Your task to perform on an android device: Search for Mexican restaurants on Maps Image 0: 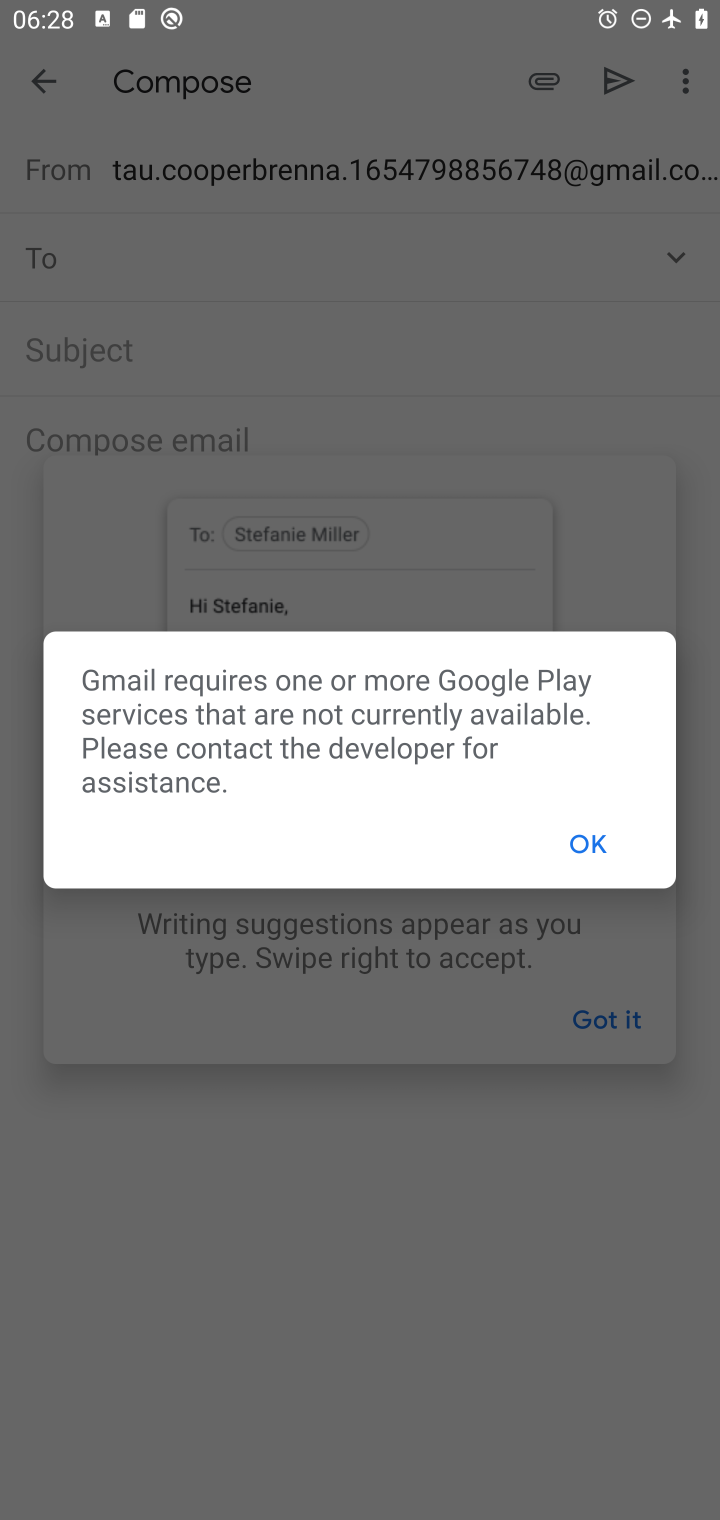
Step 0: press home button
Your task to perform on an android device: Search for Mexican restaurants on Maps Image 1: 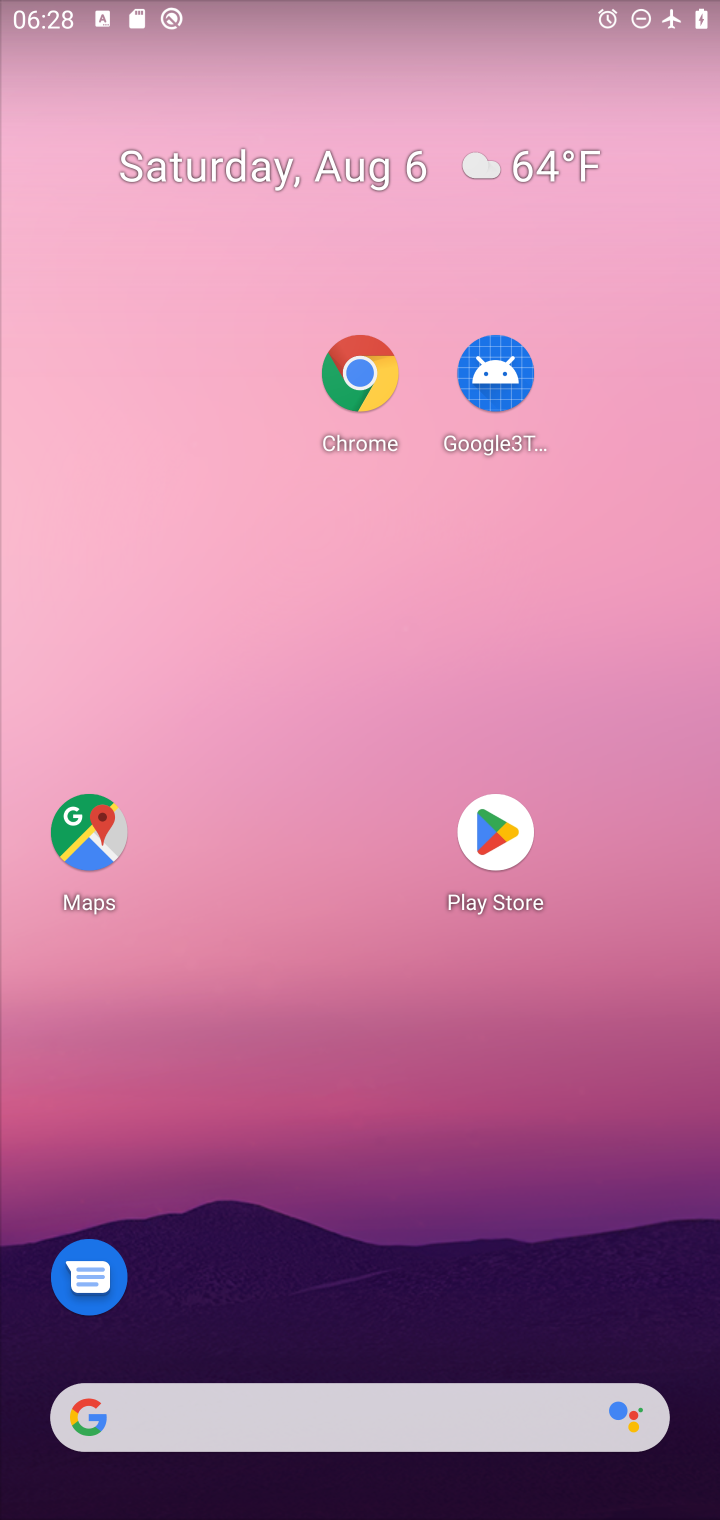
Step 1: drag from (270, 1389) to (146, 442)
Your task to perform on an android device: Search for Mexican restaurants on Maps Image 2: 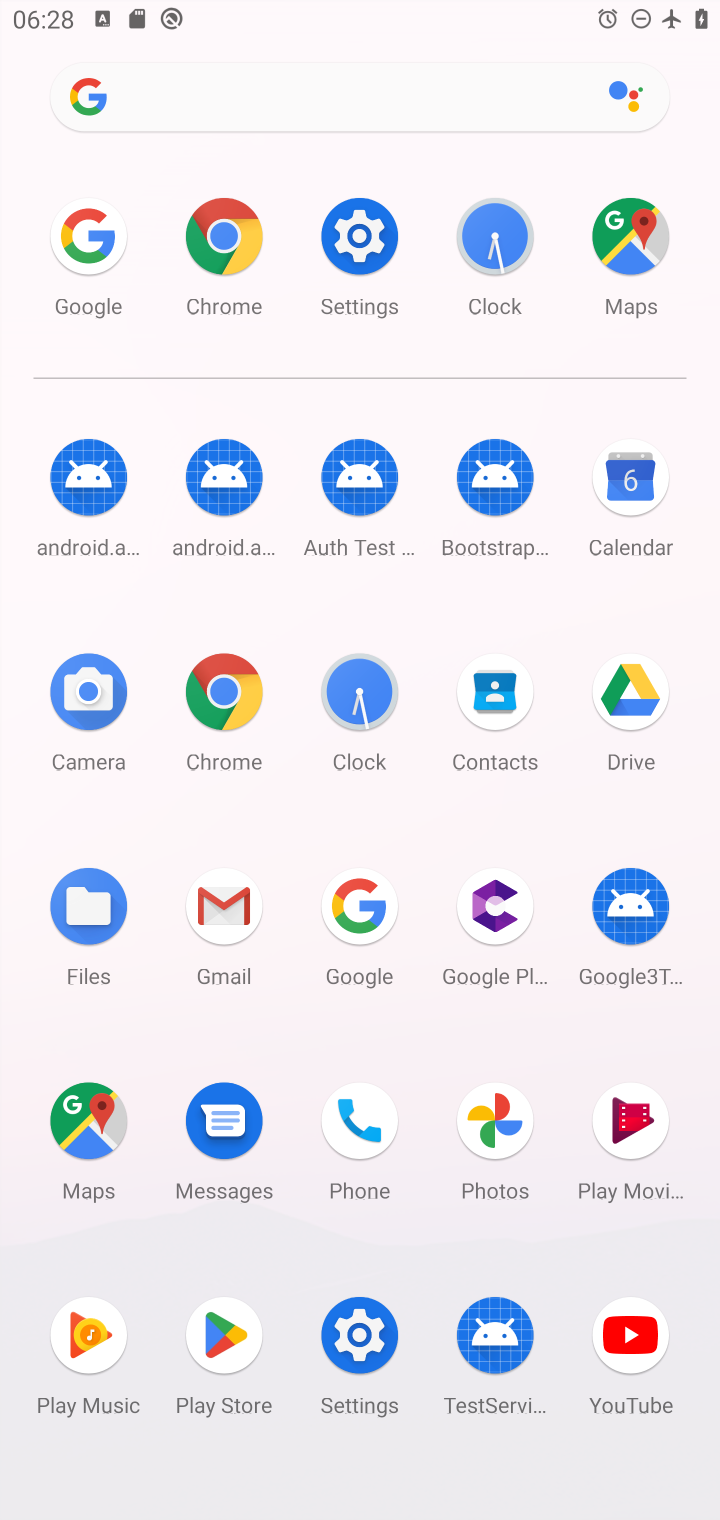
Step 2: click (98, 1108)
Your task to perform on an android device: Search for Mexican restaurants on Maps Image 3: 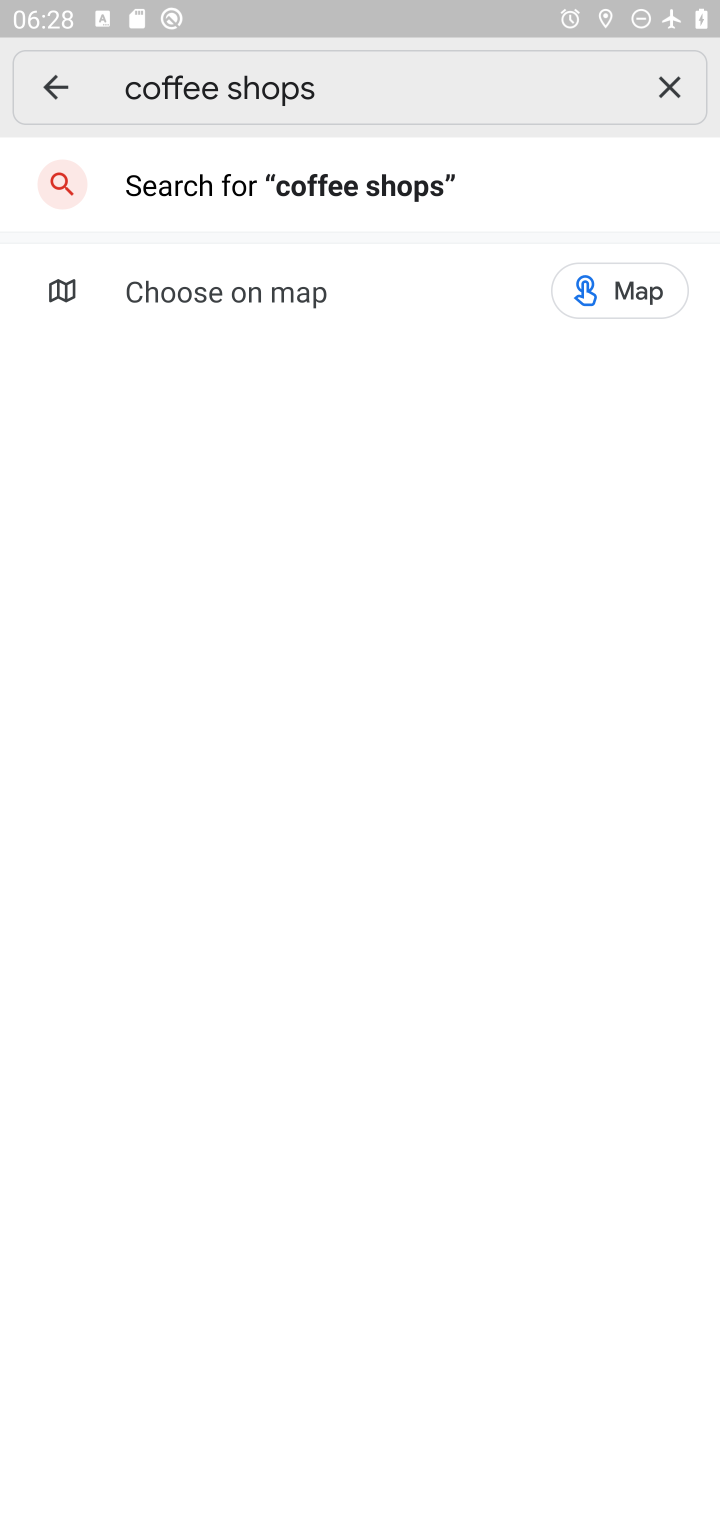
Step 3: click (666, 89)
Your task to perform on an android device: Search for Mexican restaurants on Maps Image 4: 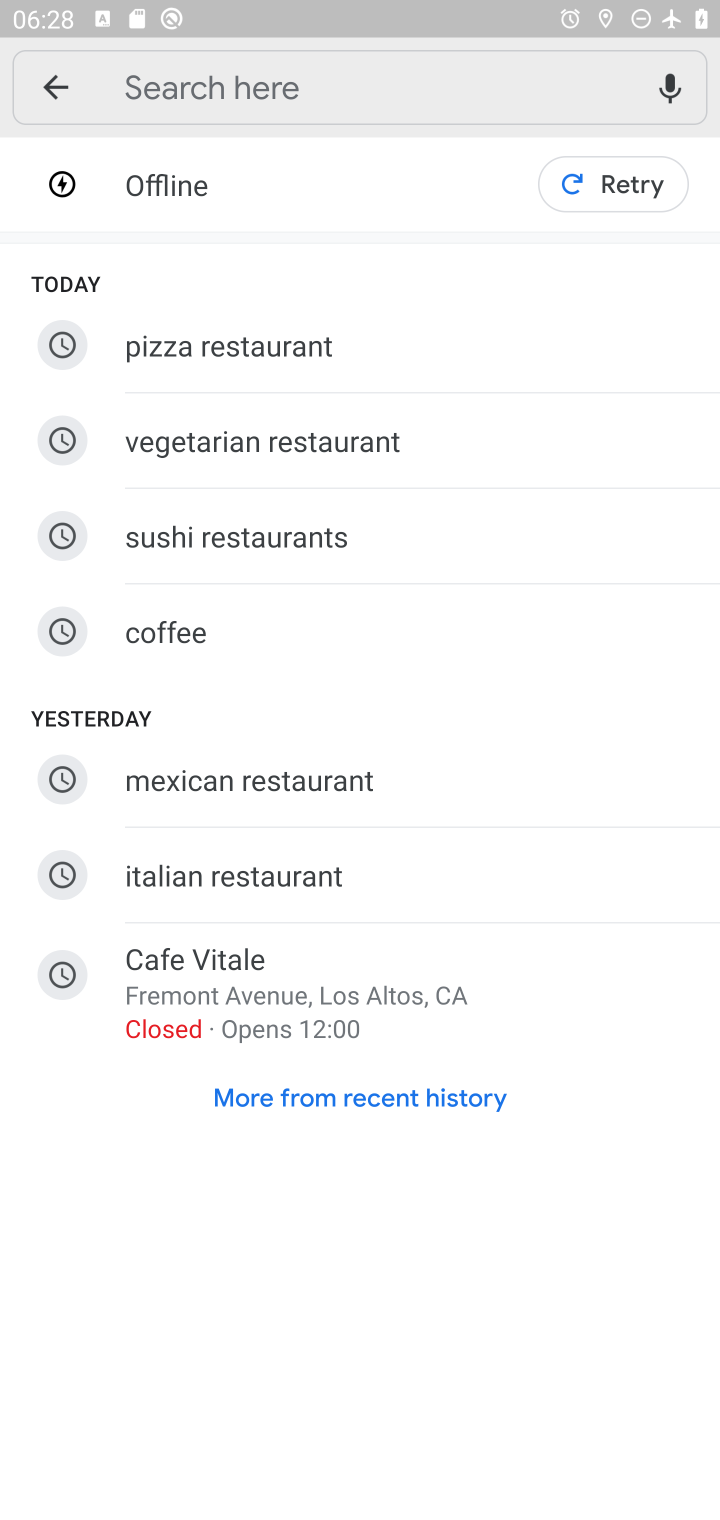
Step 4: drag from (456, 19) to (402, 690)
Your task to perform on an android device: Search for Mexican restaurants on Maps Image 5: 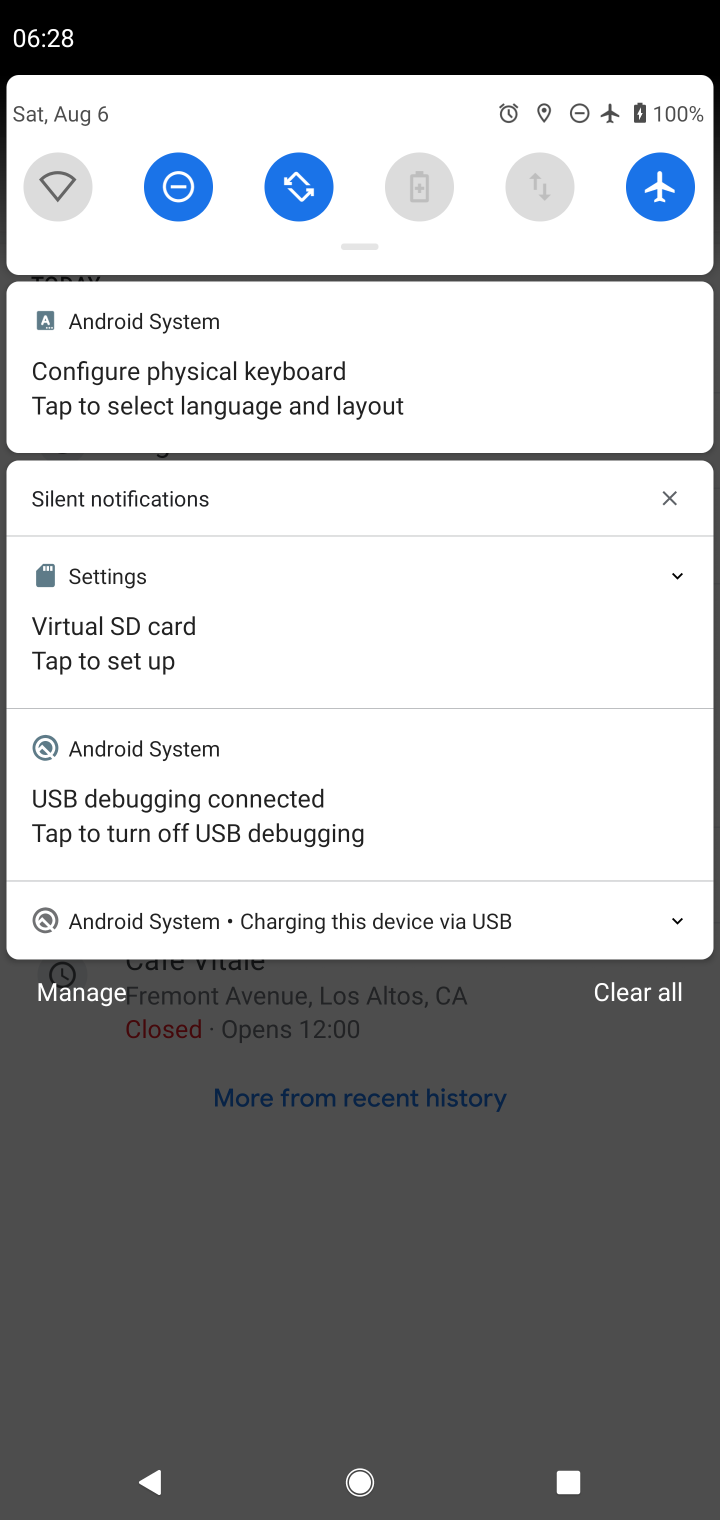
Step 5: click (657, 169)
Your task to perform on an android device: Search for Mexican restaurants on Maps Image 6: 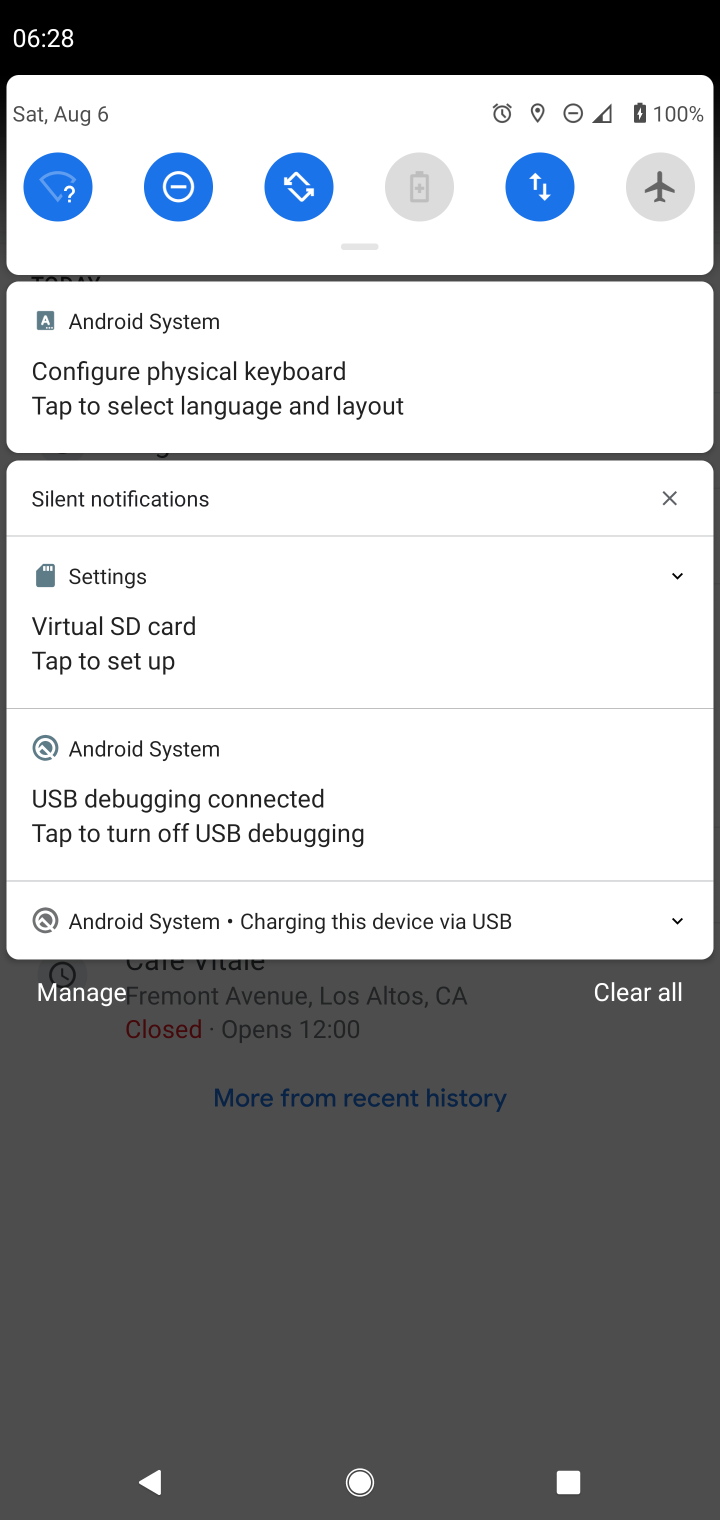
Step 6: click (558, 1223)
Your task to perform on an android device: Search for Mexican restaurants on Maps Image 7: 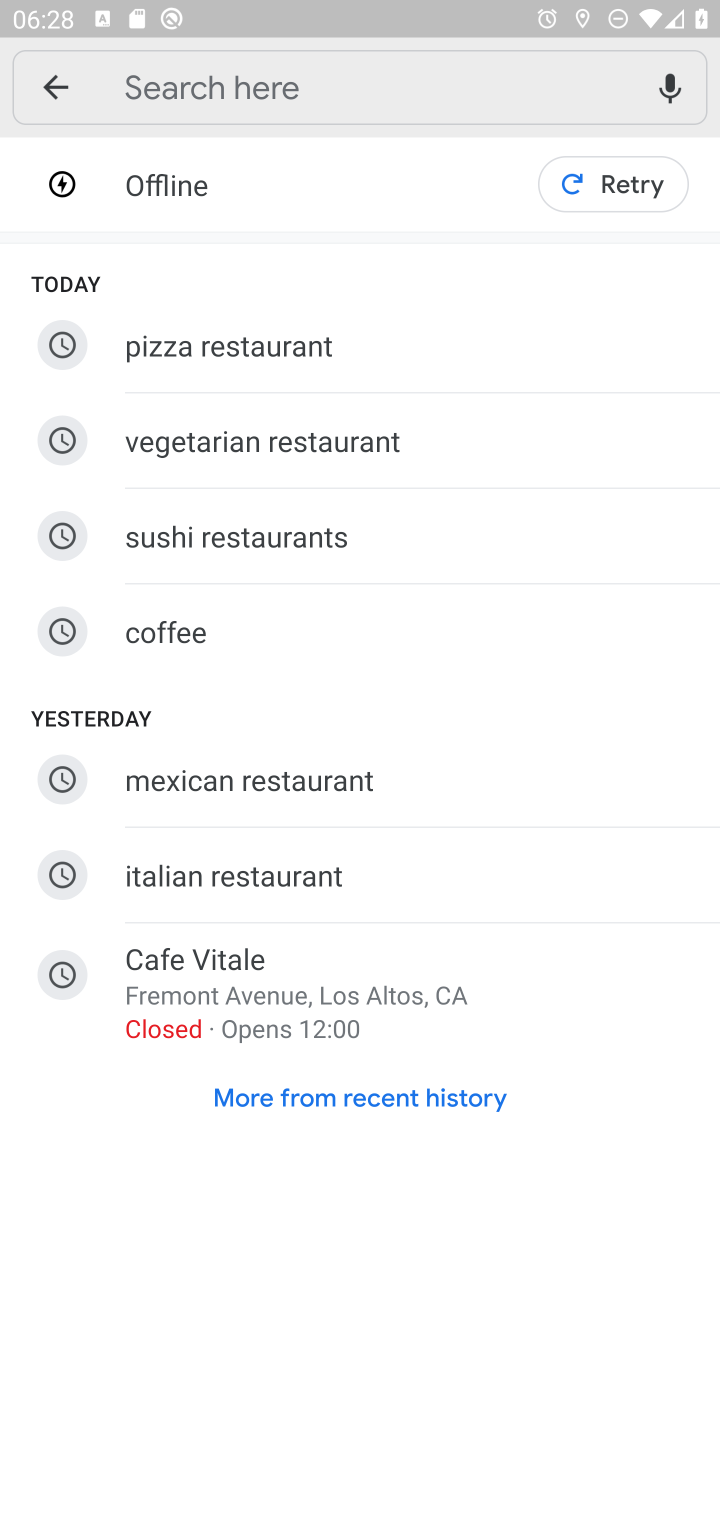
Step 7: click (355, 790)
Your task to perform on an android device: Search for Mexican restaurants on Maps Image 8: 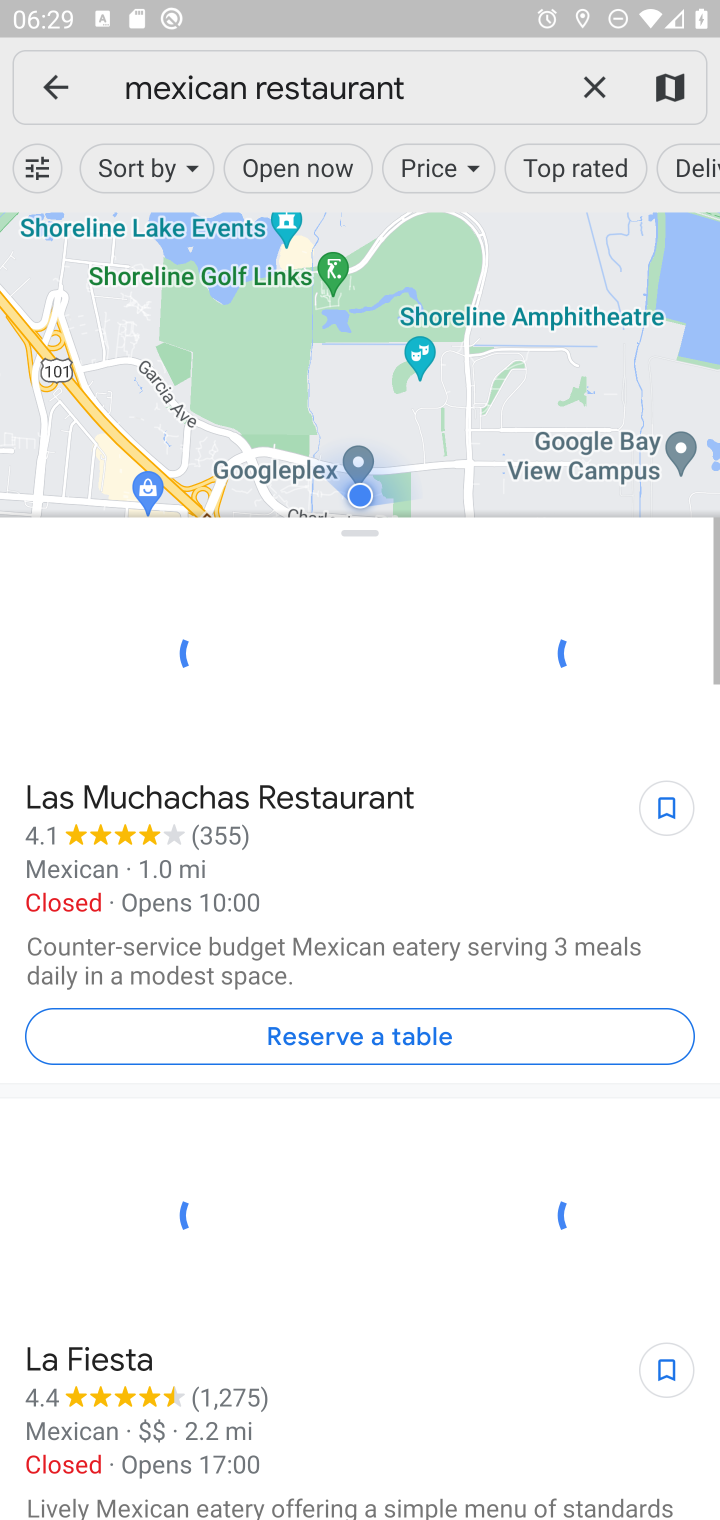
Step 8: task complete